Your task to perform on an android device: star an email in the gmail app Image 0: 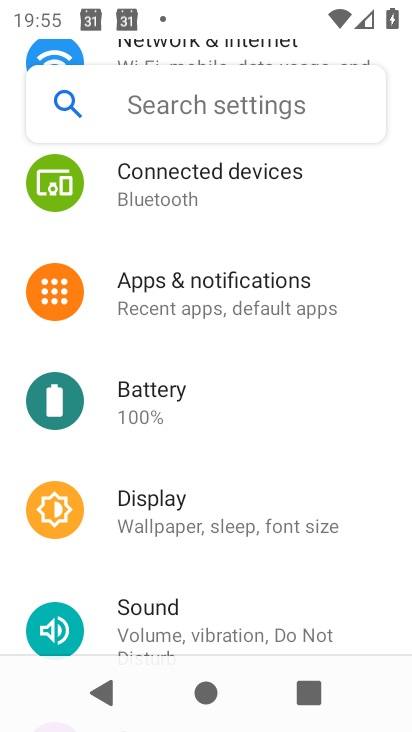
Step 0: press home button
Your task to perform on an android device: star an email in the gmail app Image 1: 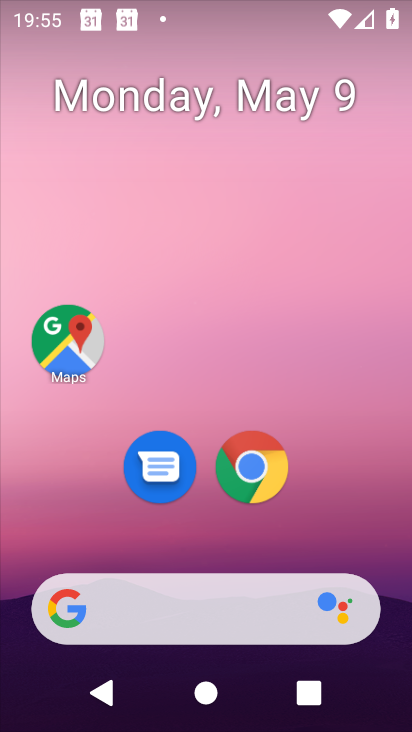
Step 1: drag from (374, 533) to (315, 81)
Your task to perform on an android device: star an email in the gmail app Image 2: 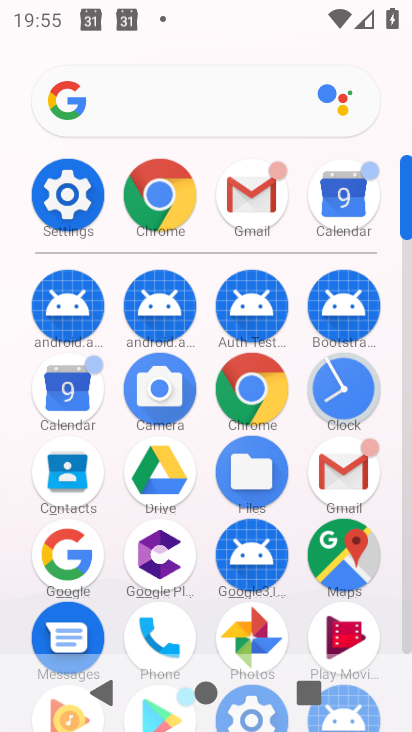
Step 2: click (331, 476)
Your task to perform on an android device: star an email in the gmail app Image 3: 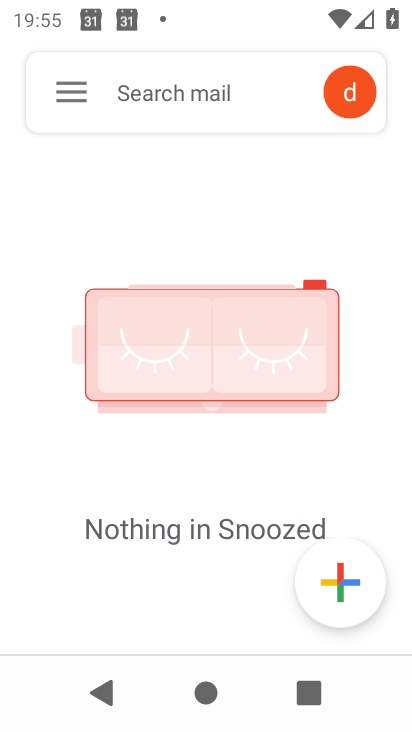
Step 3: click (58, 82)
Your task to perform on an android device: star an email in the gmail app Image 4: 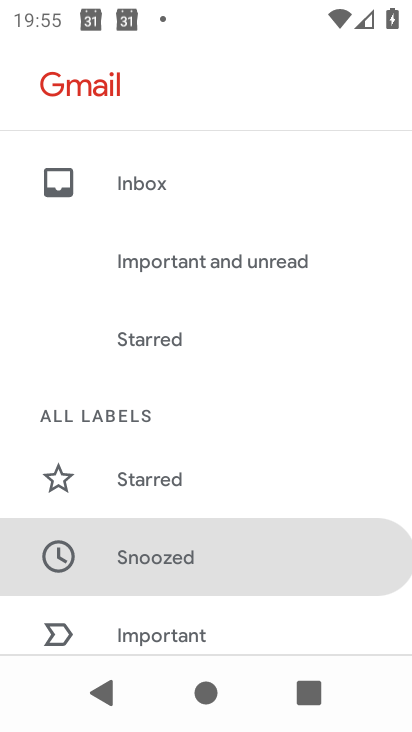
Step 4: drag from (252, 548) to (215, 30)
Your task to perform on an android device: star an email in the gmail app Image 5: 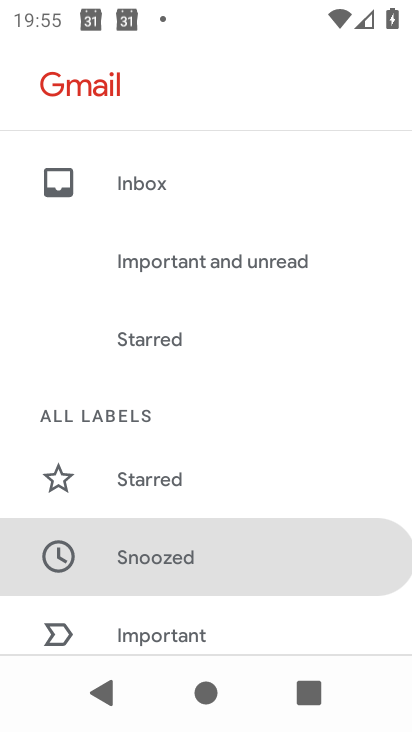
Step 5: drag from (79, 616) to (293, 81)
Your task to perform on an android device: star an email in the gmail app Image 6: 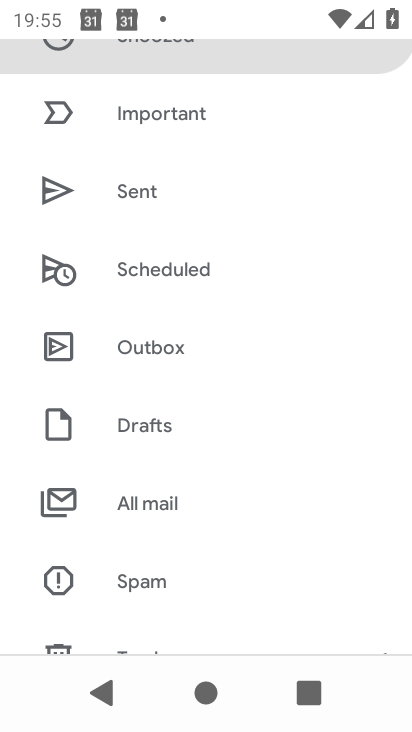
Step 6: click (145, 511)
Your task to perform on an android device: star an email in the gmail app Image 7: 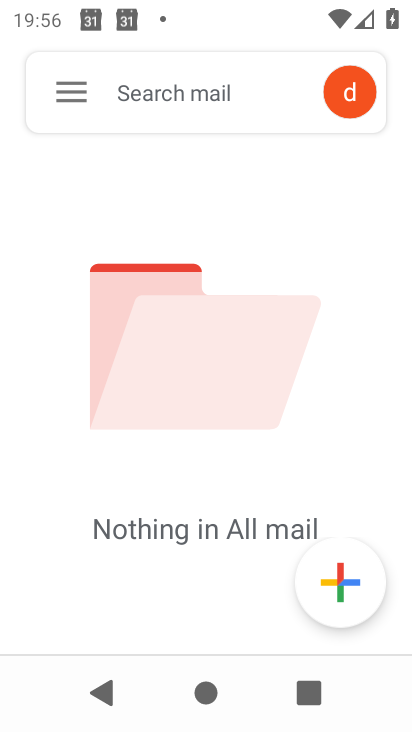
Step 7: task complete